Your task to perform on an android device: turn vacation reply on in the gmail app Image 0: 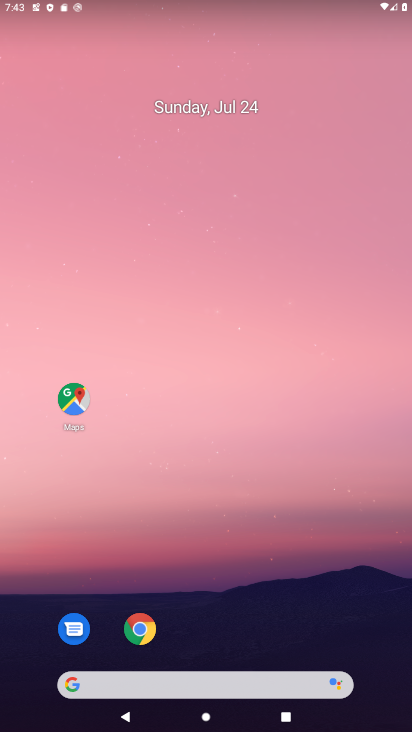
Step 0: press home button
Your task to perform on an android device: turn vacation reply on in the gmail app Image 1: 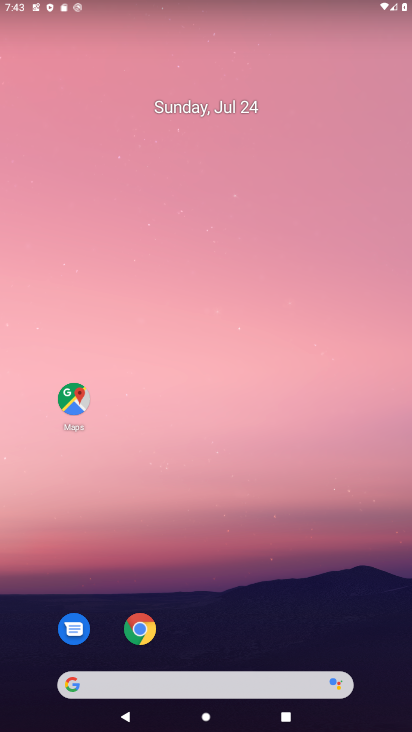
Step 1: drag from (384, 629) to (388, 84)
Your task to perform on an android device: turn vacation reply on in the gmail app Image 2: 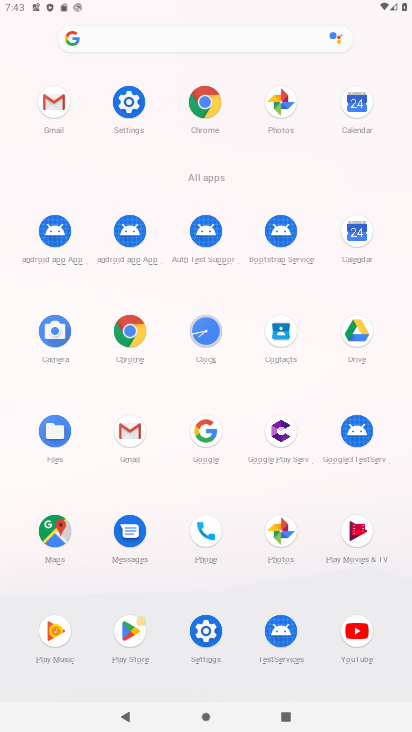
Step 2: click (127, 441)
Your task to perform on an android device: turn vacation reply on in the gmail app Image 3: 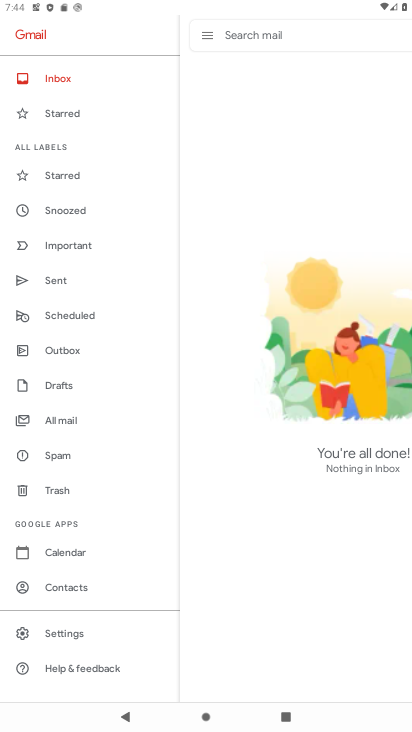
Step 3: click (85, 636)
Your task to perform on an android device: turn vacation reply on in the gmail app Image 4: 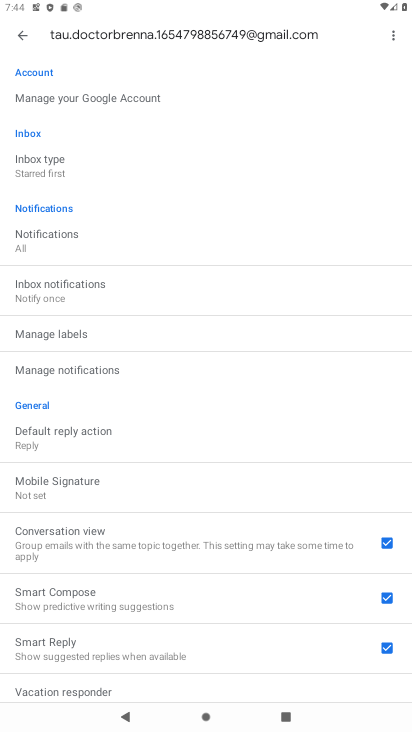
Step 4: drag from (264, 408) to (270, 319)
Your task to perform on an android device: turn vacation reply on in the gmail app Image 5: 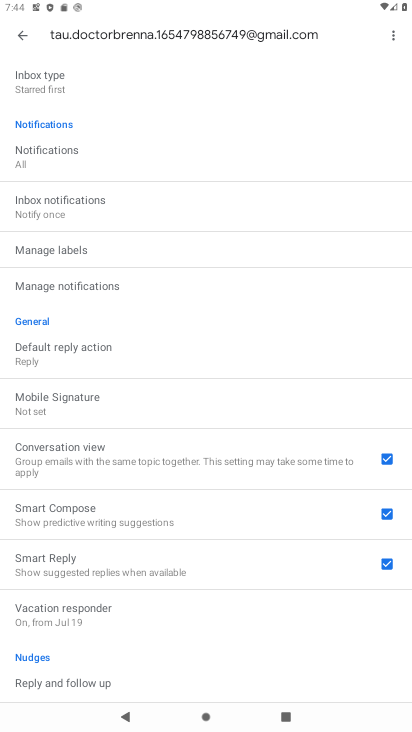
Step 5: drag from (288, 510) to (292, 410)
Your task to perform on an android device: turn vacation reply on in the gmail app Image 6: 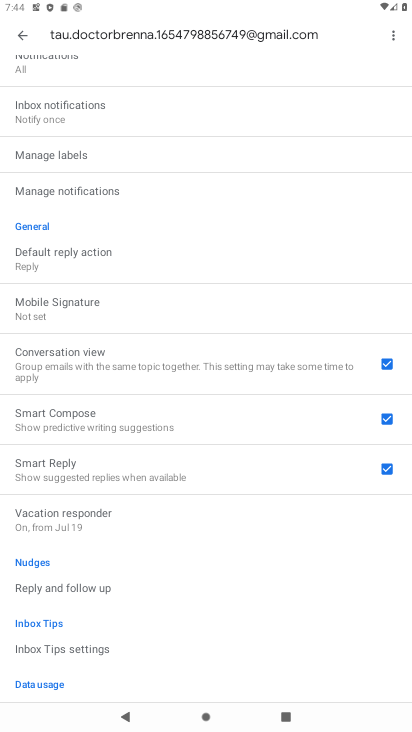
Step 6: drag from (290, 567) to (285, 478)
Your task to perform on an android device: turn vacation reply on in the gmail app Image 7: 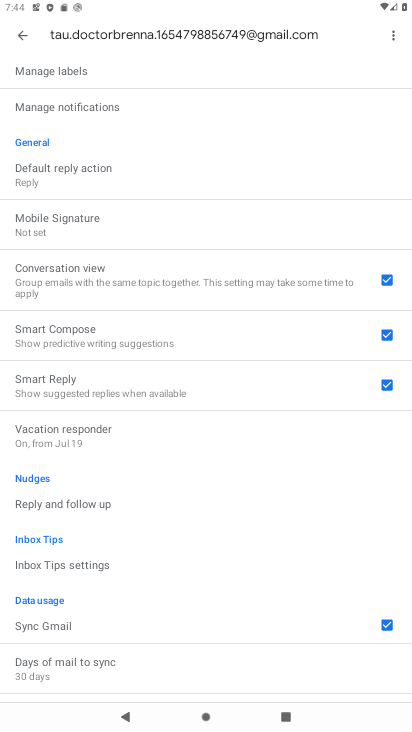
Step 7: drag from (282, 575) to (282, 415)
Your task to perform on an android device: turn vacation reply on in the gmail app Image 8: 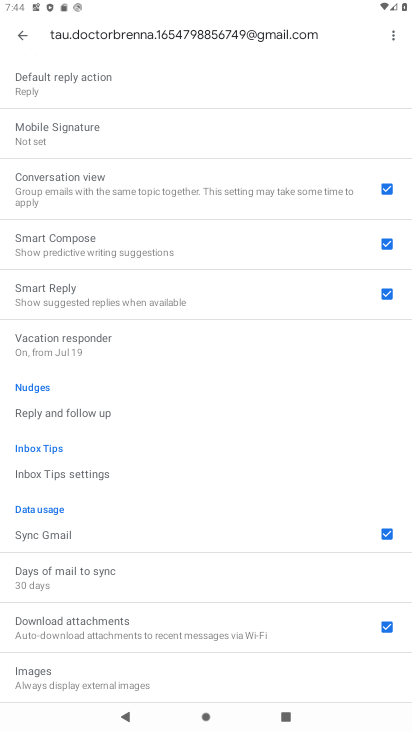
Step 8: drag from (283, 331) to (284, 397)
Your task to perform on an android device: turn vacation reply on in the gmail app Image 9: 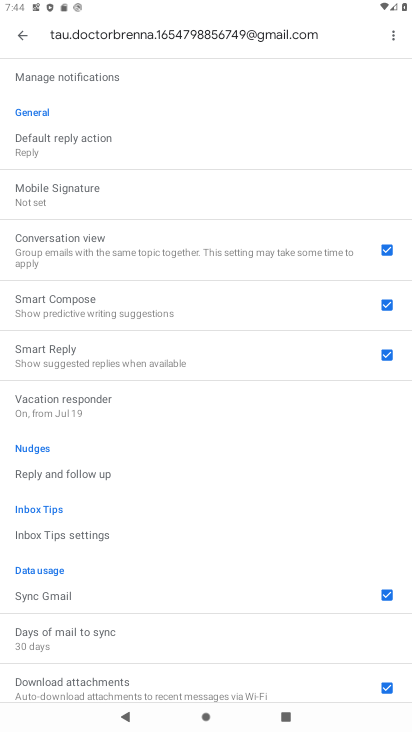
Step 9: drag from (282, 338) to (282, 431)
Your task to perform on an android device: turn vacation reply on in the gmail app Image 10: 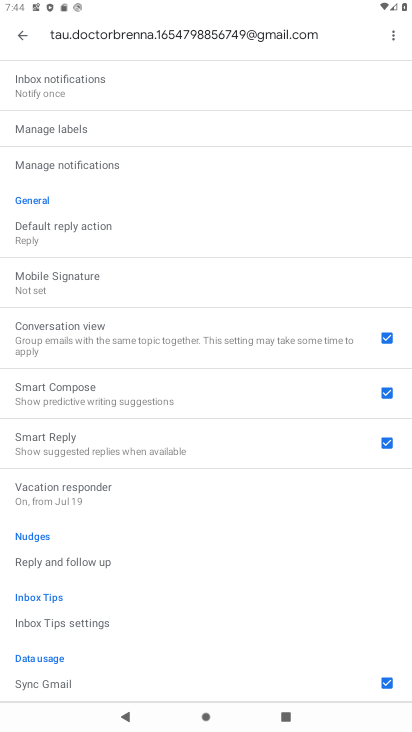
Step 10: click (236, 500)
Your task to perform on an android device: turn vacation reply on in the gmail app Image 11: 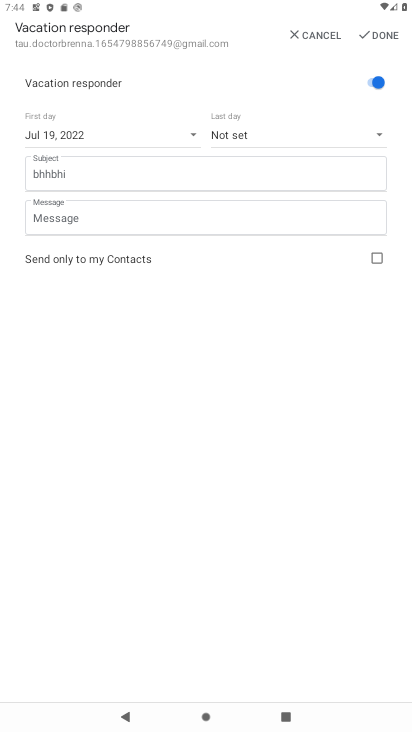
Step 11: task complete